Your task to perform on an android device: allow notifications from all sites in the chrome app Image 0: 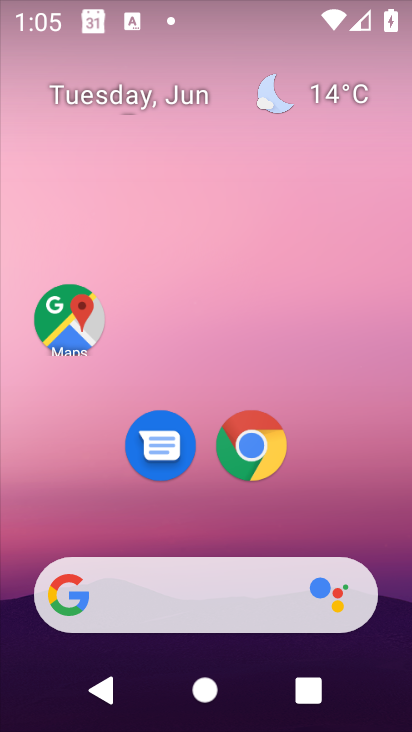
Step 0: click (262, 425)
Your task to perform on an android device: allow notifications from all sites in the chrome app Image 1: 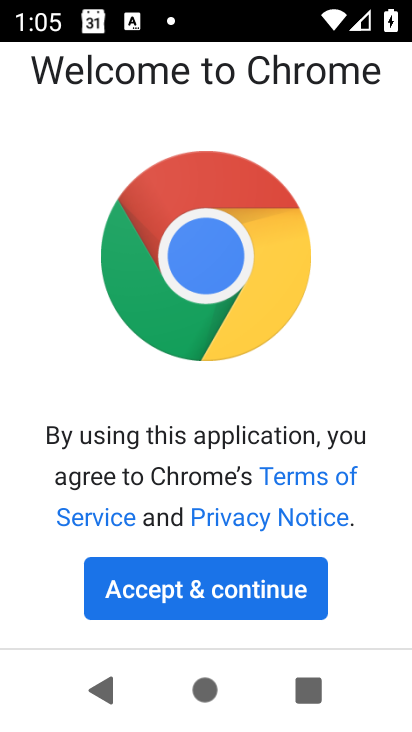
Step 1: click (243, 592)
Your task to perform on an android device: allow notifications from all sites in the chrome app Image 2: 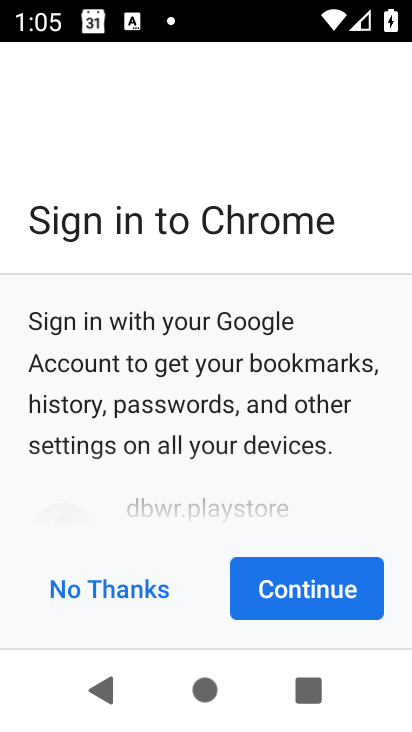
Step 2: click (243, 592)
Your task to perform on an android device: allow notifications from all sites in the chrome app Image 3: 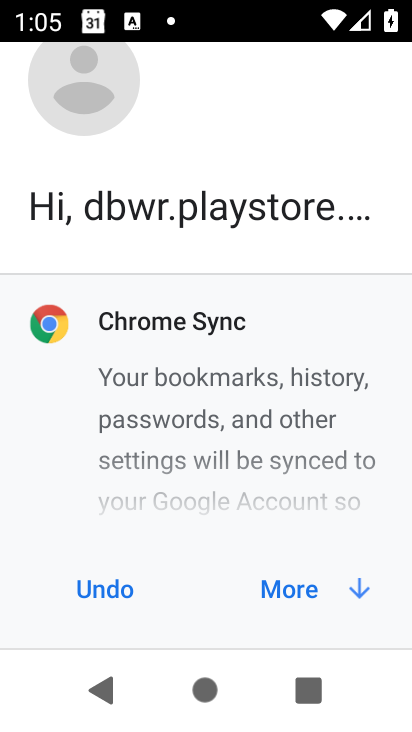
Step 3: click (243, 592)
Your task to perform on an android device: allow notifications from all sites in the chrome app Image 4: 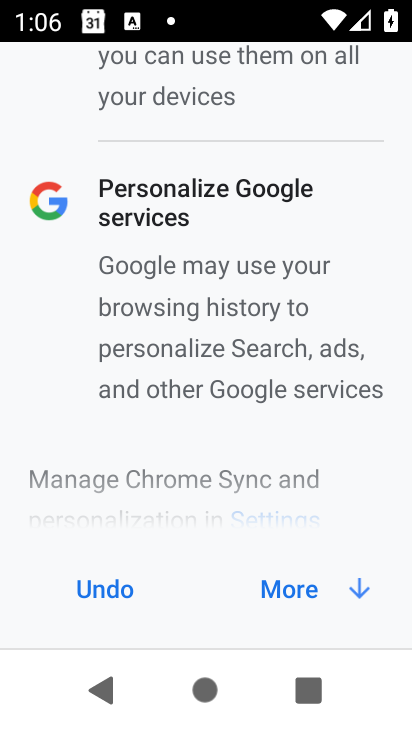
Step 4: click (307, 599)
Your task to perform on an android device: allow notifications from all sites in the chrome app Image 5: 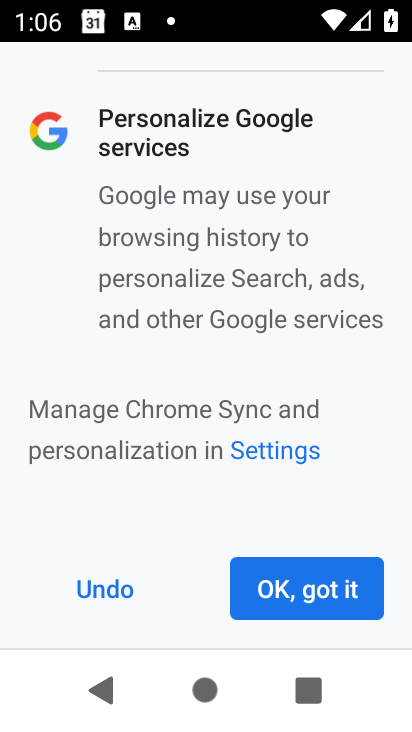
Step 5: click (307, 599)
Your task to perform on an android device: allow notifications from all sites in the chrome app Image 6: 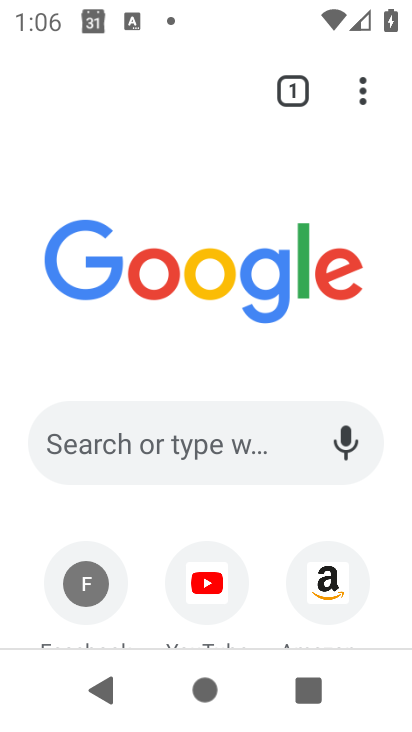
Step 6: click (367, 92)
Your task to perform on an android device: allow notifications from all sites in the chrome app Image 7: 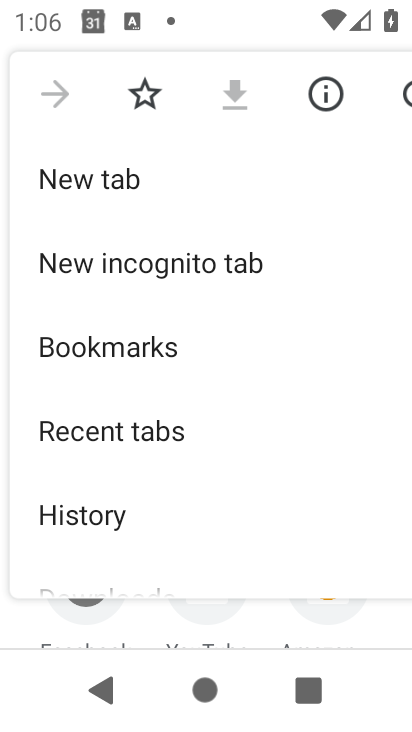
Step 7: drag from (113, 389) to (197, 72)
Your task to perform on an android device: allow notifications from all sites in the chrome app Image 8: 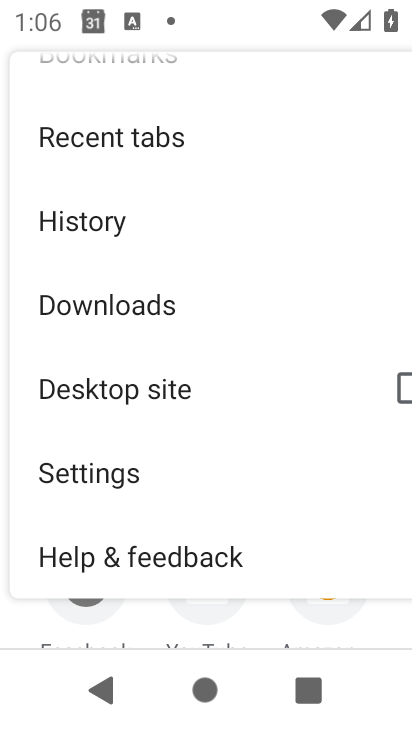
Step 8: click (128, 473)
Your task to perform on an android device: allow notifications from all sites in the chrome app Image 9: 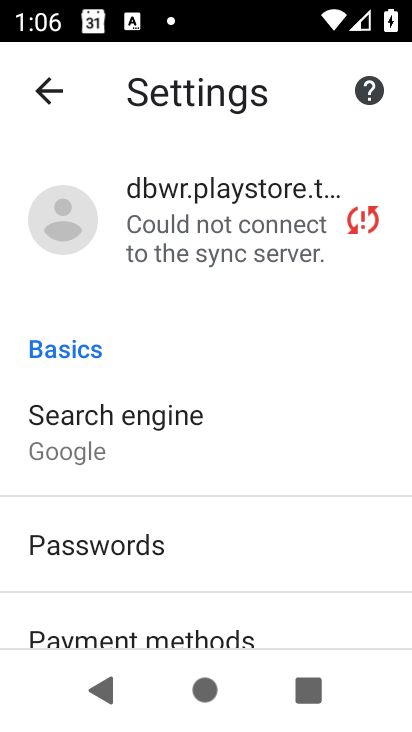
Step 9: drag from (108, 601) to (182, 133)
Your task to perform on an android device: allow notifications from all sites in the chrome app Image 10: 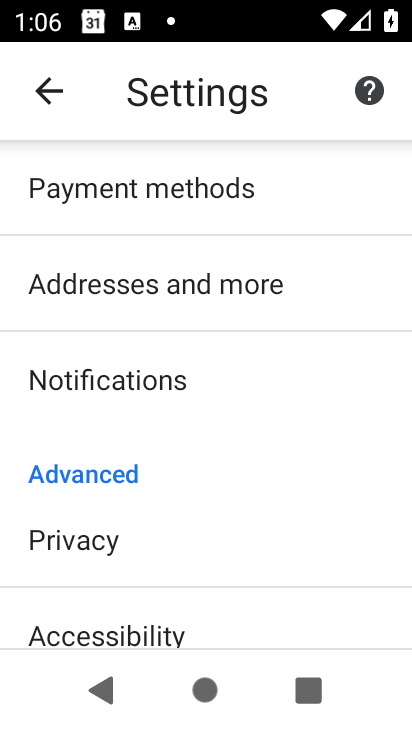
Step 10: click (117, 400)
Your task to perform on an android device: allow notifications from all sites in the chrome app Image 11: 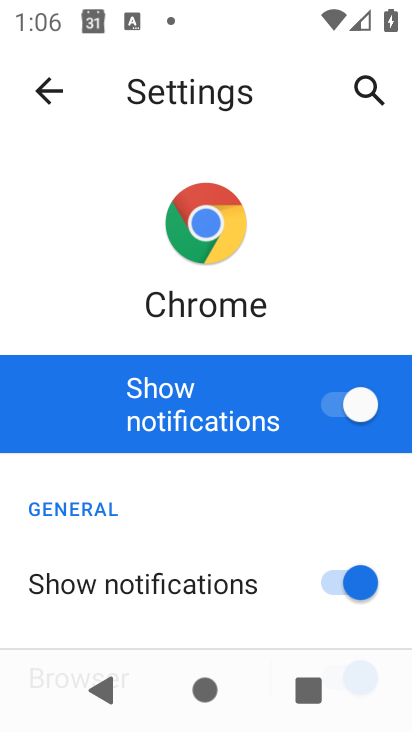
Step 11: task complete